Your task to perform on an android device: clear history in the chrome app Image 0: 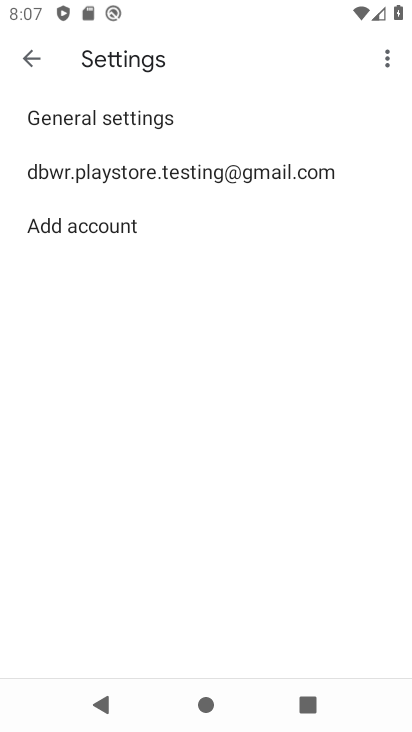
Step 0: click (30, 55)
Your task to perform on an android device: clear history in the chrome app Image 1: 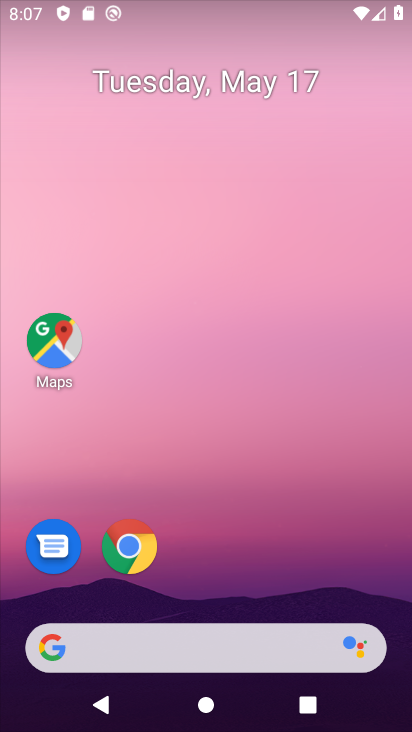
Step 1: drag from (361, 636) to (243, 131)
Your task to perform on an android device: clear history in the chrome app Image 2: 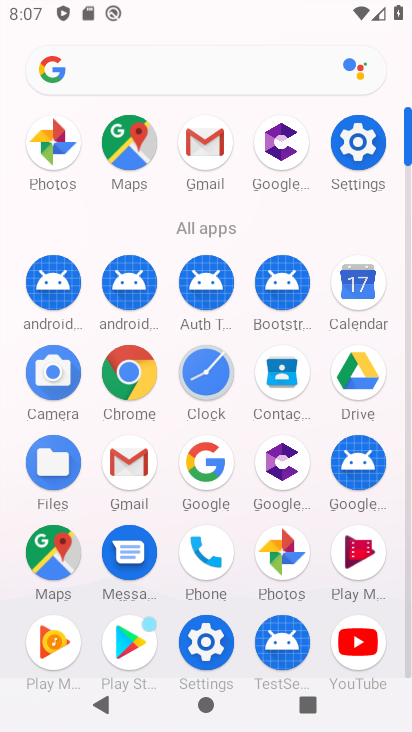
Step 2: click (141, 371)
Your task to perform on an android device: clear history in the chrome app Image 3: 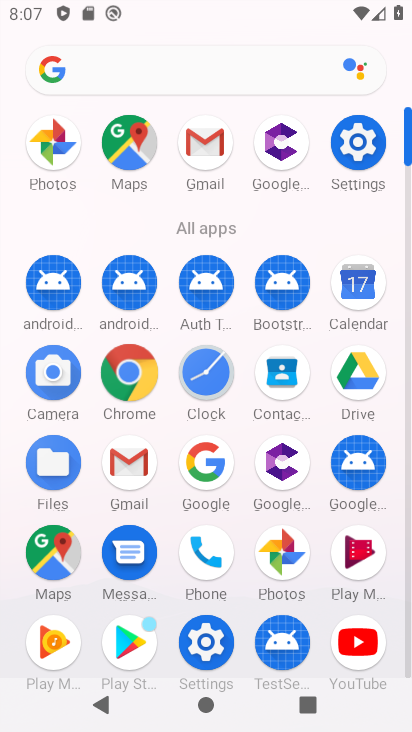
Step 3: click (140, 372)
Your task to perform on an android device: clear history in the chrome app Image 4: 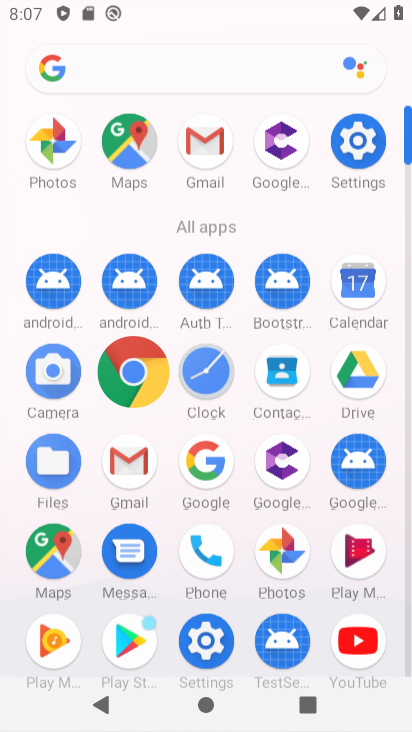
Step 4: click (143, 372)
Your task to perform on an android device: clear history in the chrome app Image 5: 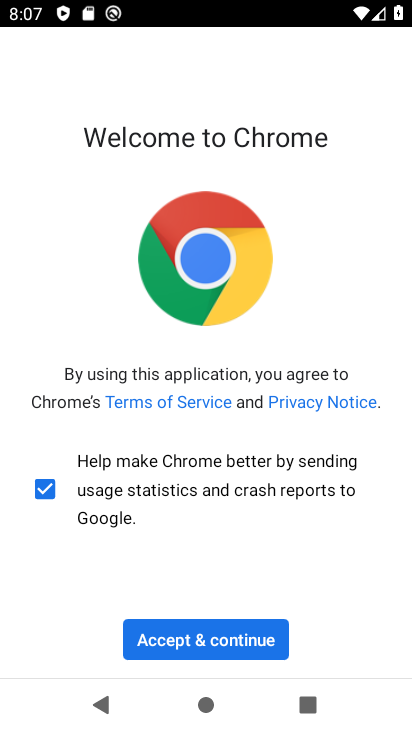
Step 5: click (228, 630)
Your task to perform on an android device: clear history in the chrome app Image 6: 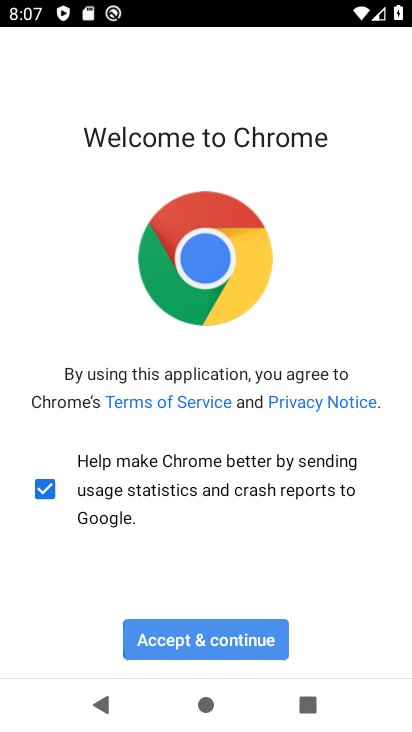
Step 6: click (227, 631)
Your task to perform on an android device: clear history in the chrome app Image 7: 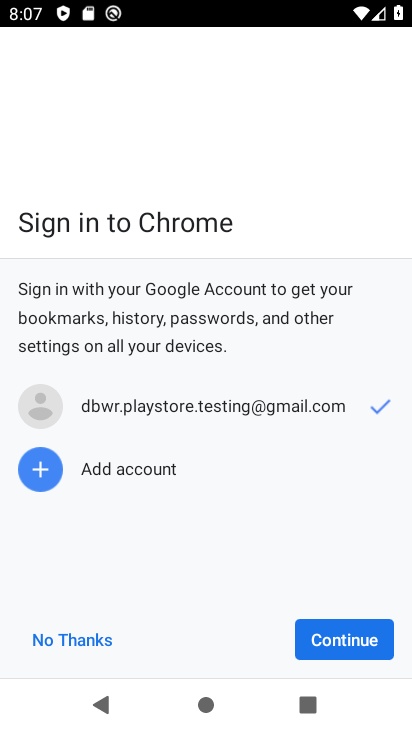
Step 7: click (227, 631)
Your task to perform on an android device: clear history in the chrome app Image 8: 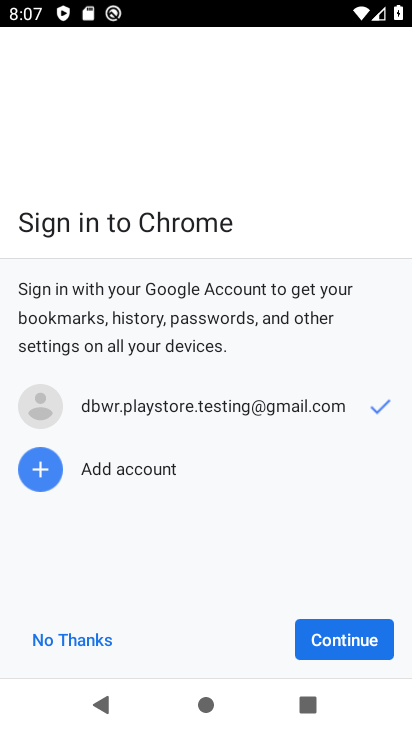
Step 8: click (227, 631)
Your task to perform on an android device: clear history in the chrome app Image 9: 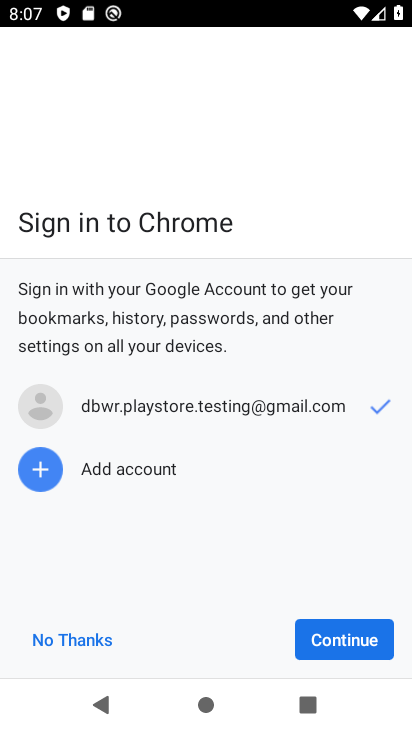
Step 9: click (322, 639)
Your task to perform on an android device: clear history in the chrome app Image 10: 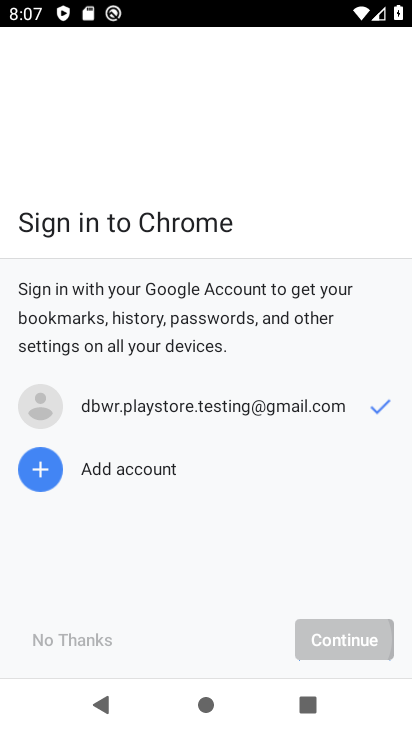
Step 10: click (322, 639)
Your task to perform on an android device: clear history in the chrome app Image 11: 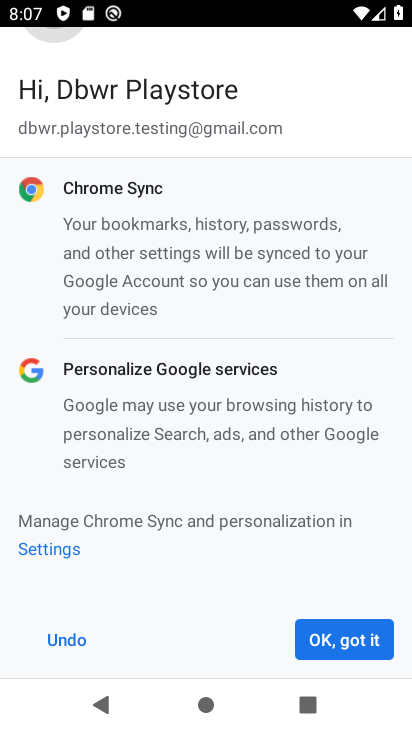
Step 11: click (356, 640)
Your task to perform on an android device: clear history in the chrome app Image 12: 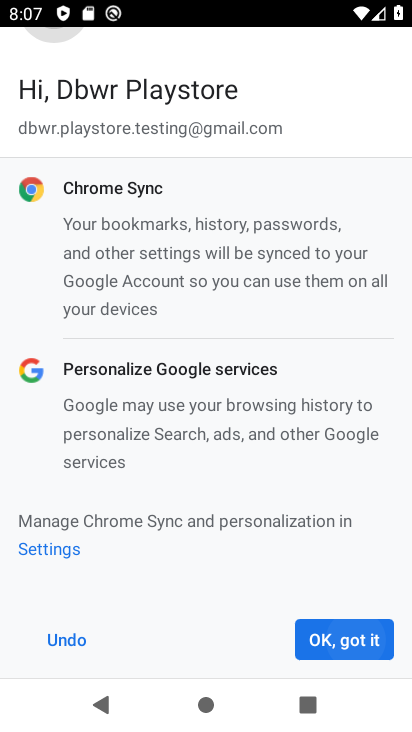
Step 12: click (358, 639)
Your task to perform on an android device: clear history in the chrome app Image 13: 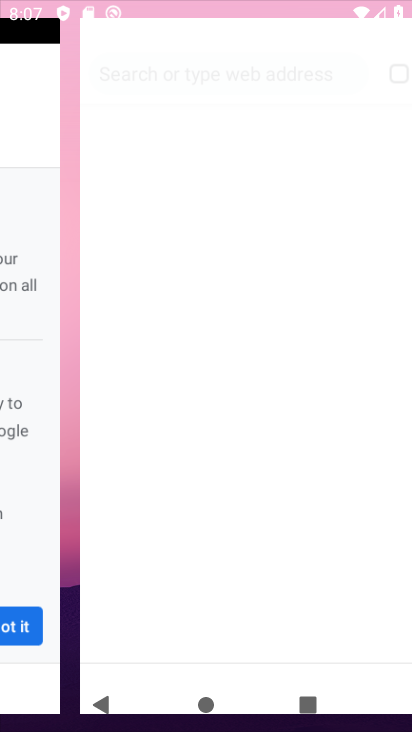
Step 13: click (366, 631)
Your task to perform on an android device: clear history in the chrome app Image 14: 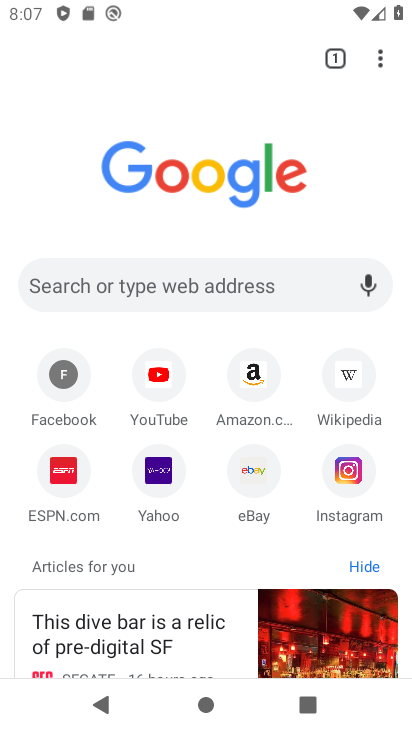
Step 14: drag from (367, 62) to (155, 324)
Your task to perform on an android device: clear history in the chrome app Image 15: 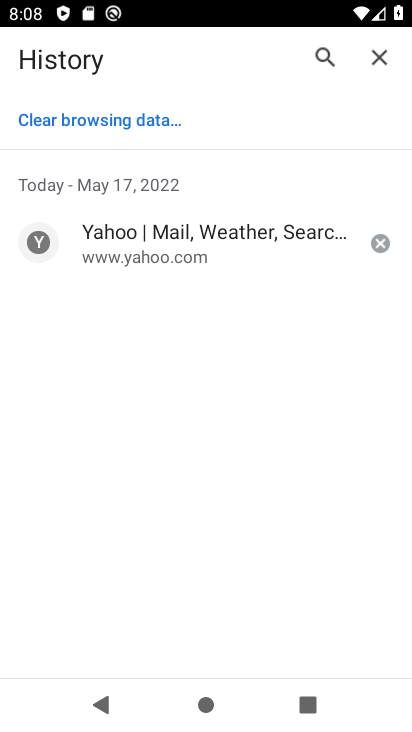
Step 15: click (380, 247)
Your task to perform on an android device: clear history in the chrome app Image 16: 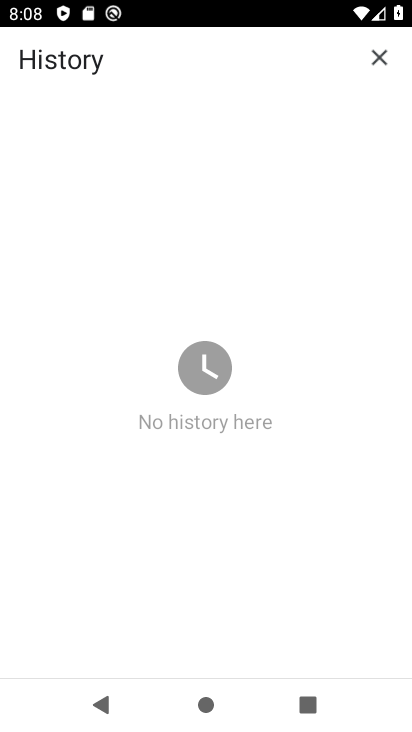
Step 16: task complete